Your task to perform on an android device: move an email to a new category in the gmail app Image 0: 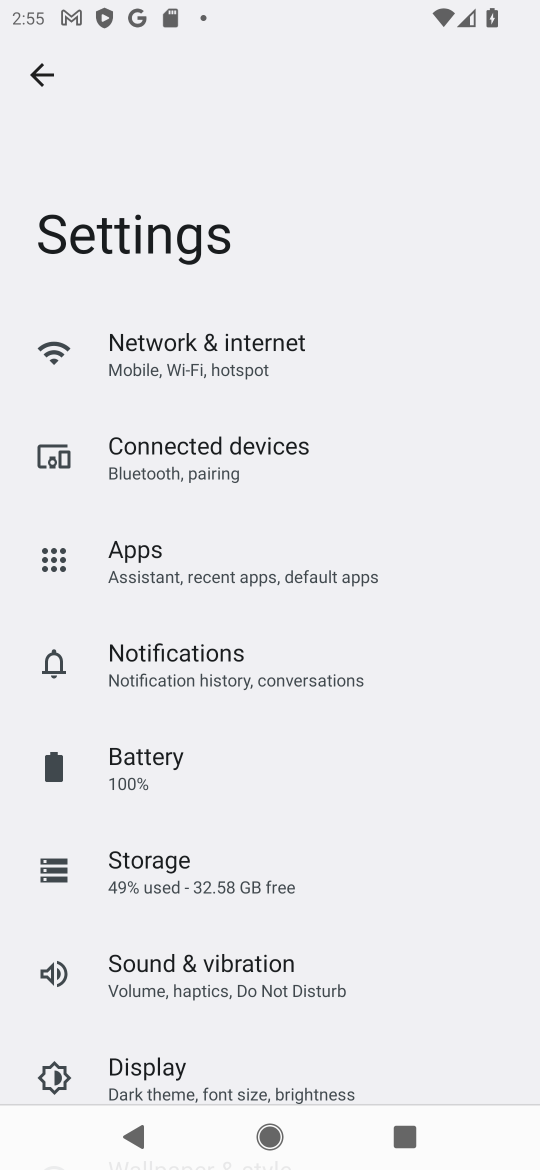
Step 0: press home button
Your task to perform on an android device: move an email to a new category in the gmail app Image 1: 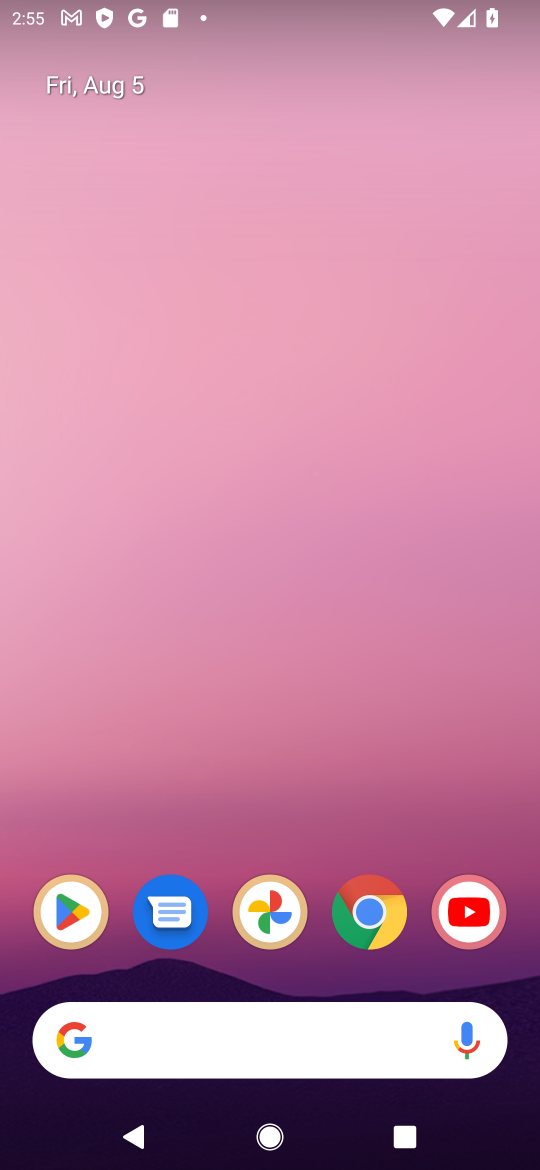
Step 1: drag from (226, 890) to (249, 197)
Your task to perform on an android device: move an email to a new category in the gmail app Image 2: 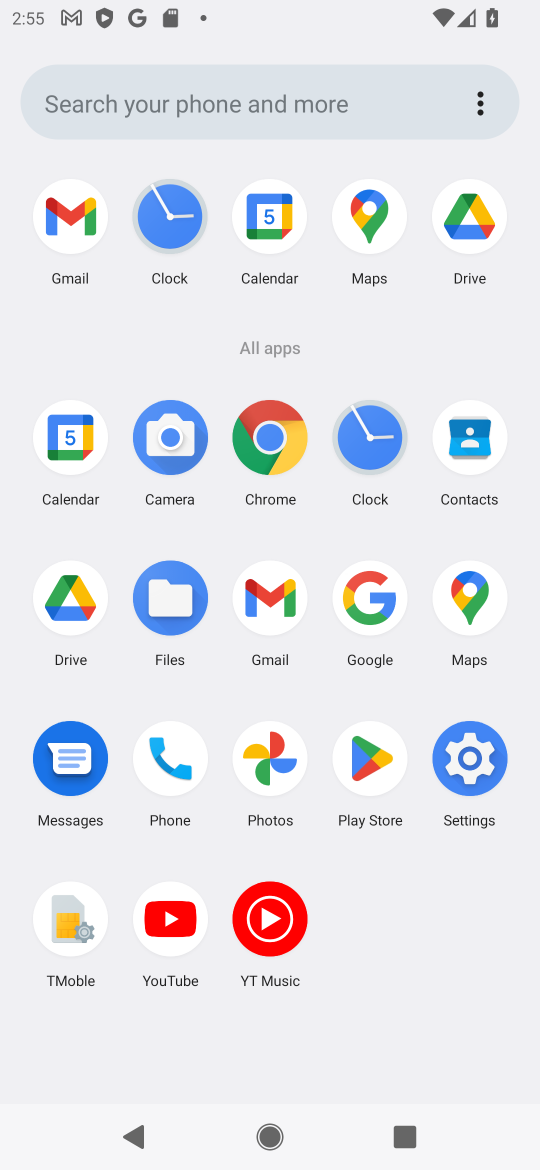
Step 2: click (278, 614)
Your task to perform on an android device: move an email to a new category in the gmail app Image 3: 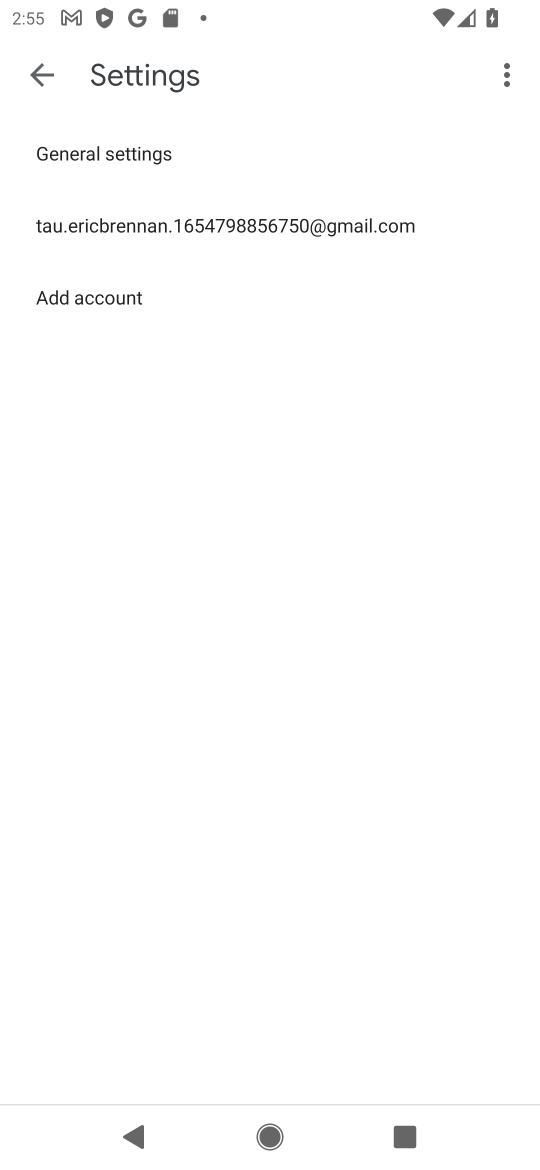
Step 3: click (31, 76)
Your task to perform on an android device: move an email to a new category in the gmail app Image 4: 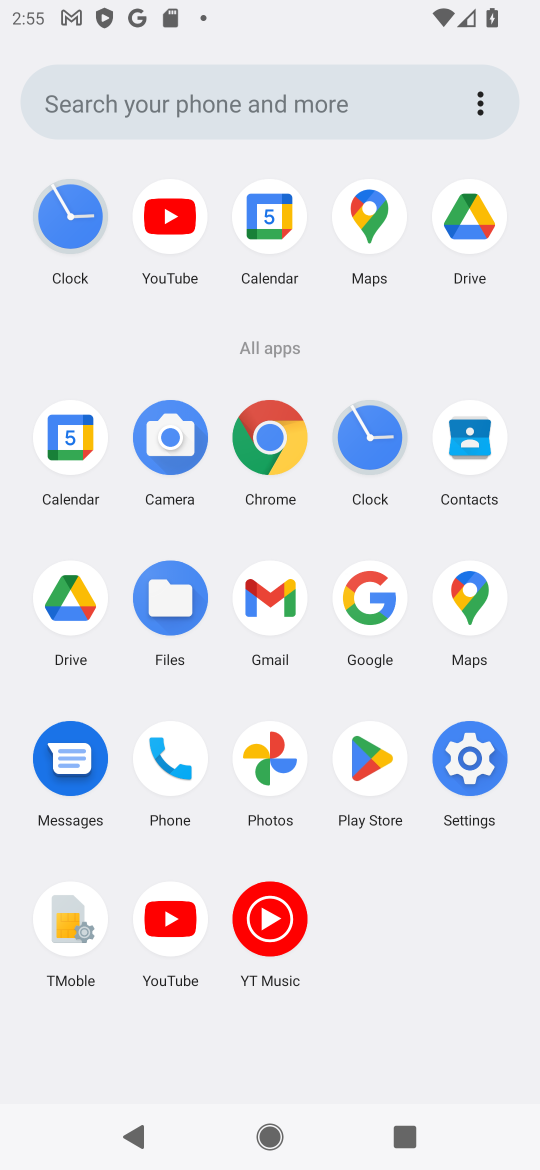
Step 4: click (276, 630)
Your task to perform on an android device: move an email to a new category in the gmail app Image 5: 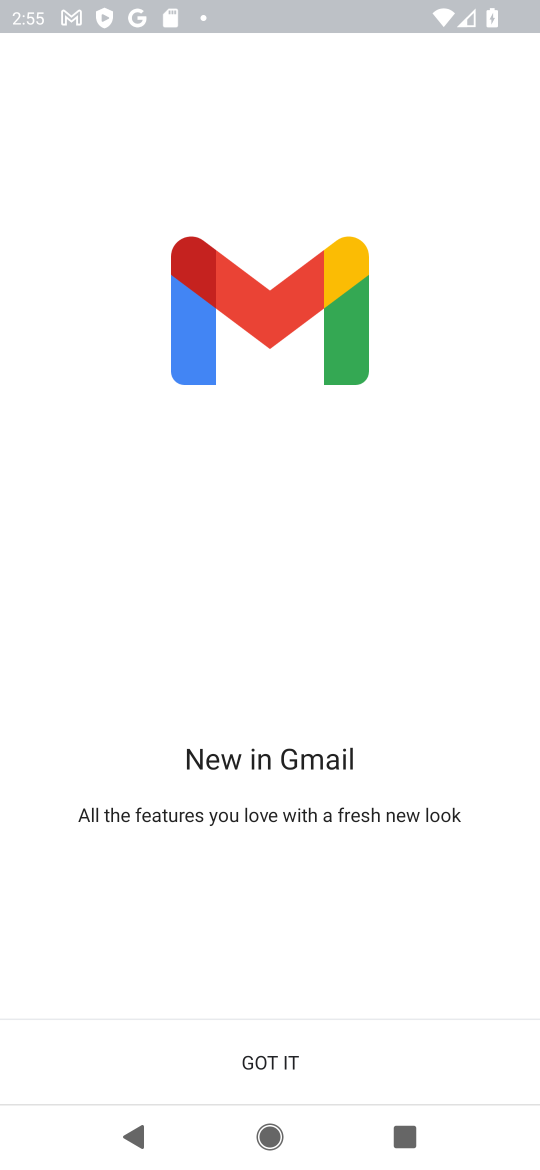
Step 5: click (313, 1065)
Your task to perform on an android device: move an email to a new category in the gmail app Image 6: 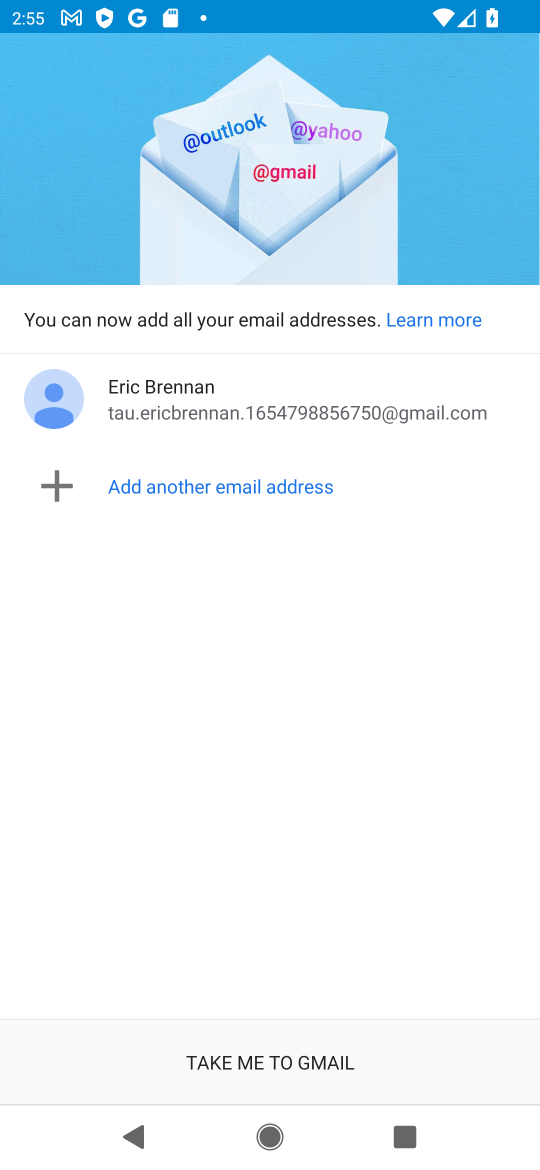
Step 6: click (313, 1068)
Your task to perform on an android device: move an email to a new category in the gmail app Image 7: 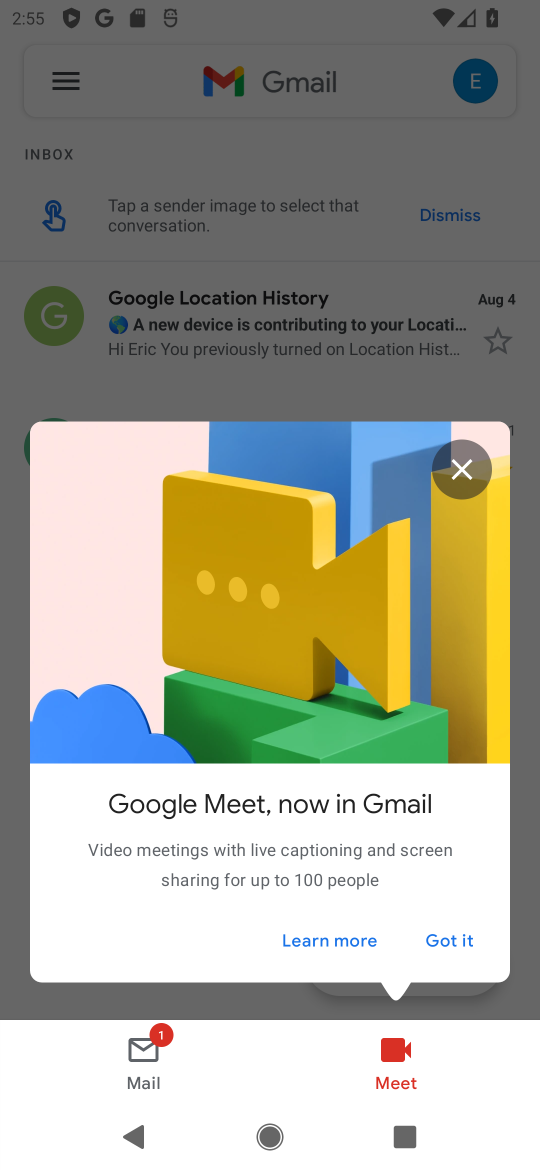
Step 7: click (465, 468)
Your task to perform on an android device: move an email to a new category in the gmail app Image 8: 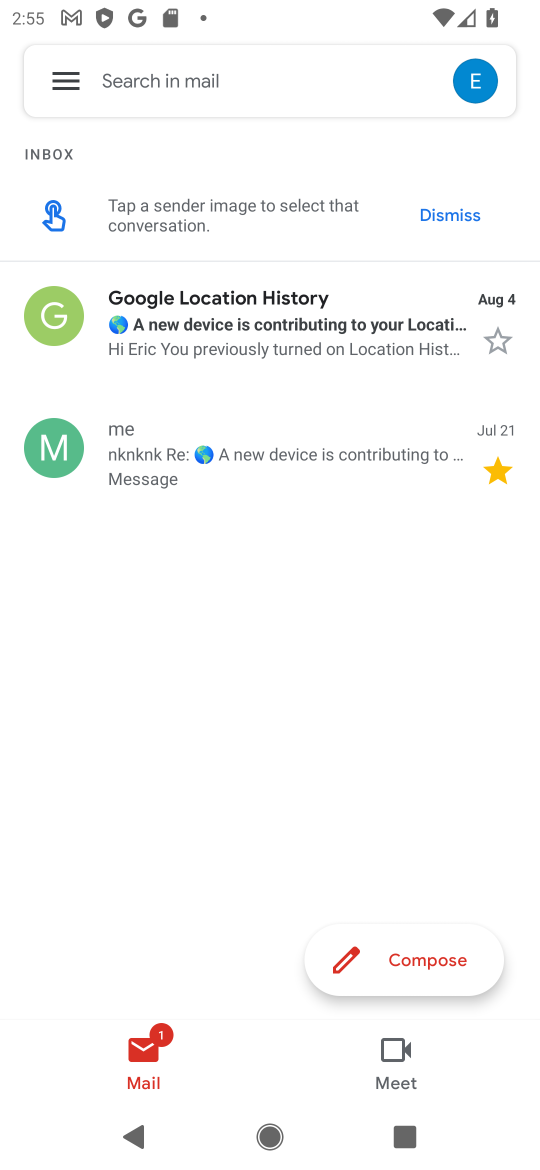
Step 8: click (39, 312)
Your task to perform on an android device: move an email to a new category in the gmail app Image 9: 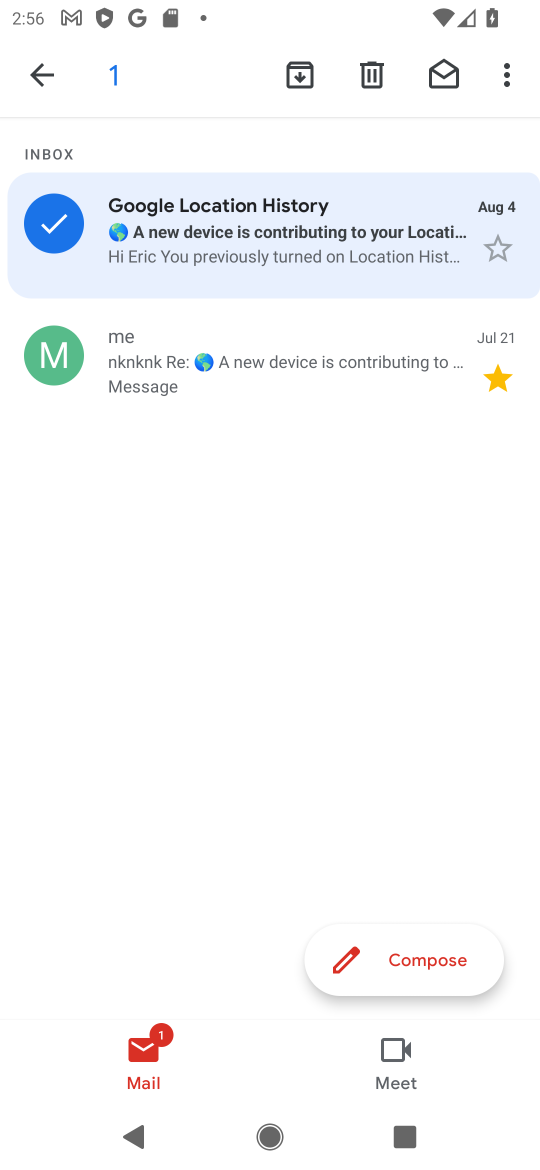
Step 9: click (502, 73)
Your task to perform on an android device: move an email to a new category in the gmail app Image 10: 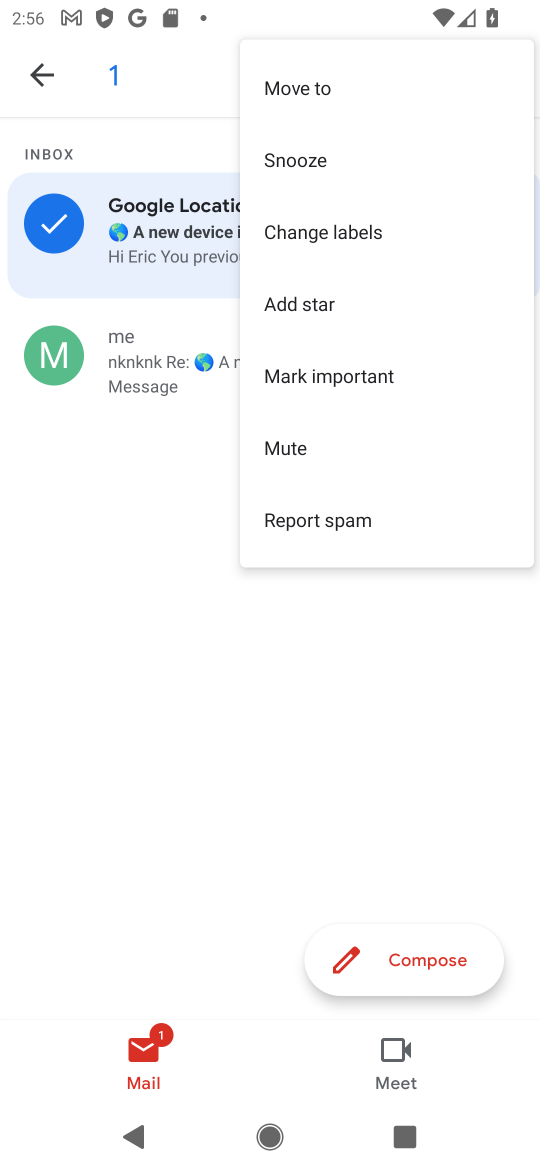
Step 10: click (347, 85)
Your task to perform on an android device: move an email to a new category in the gmail app Image 11: 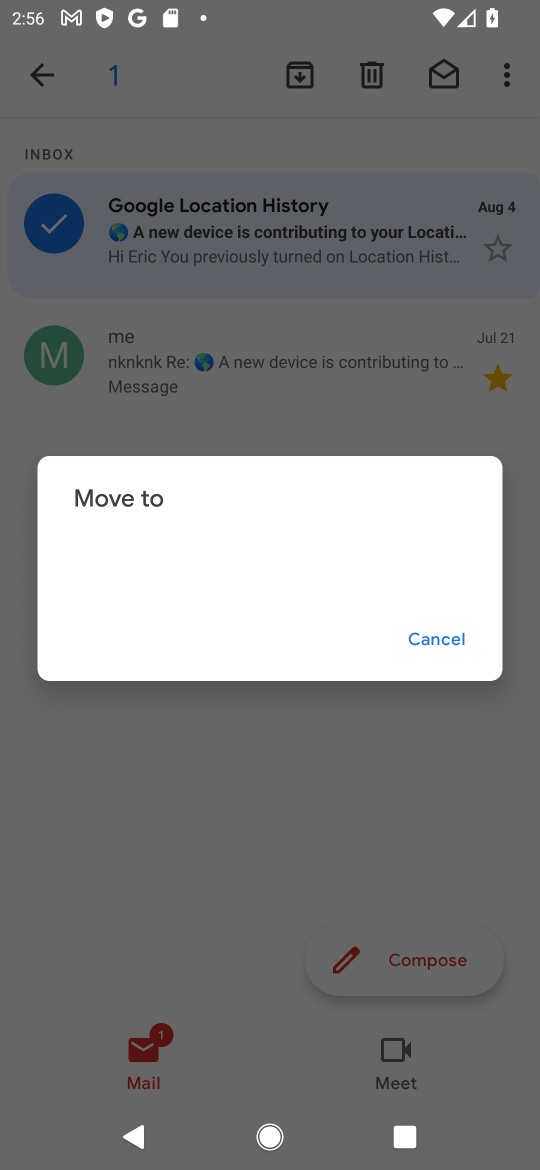
Step 11: click (441, 632)
Your task to perform on an android device: move an email to a new category in the gmail app Image 12: 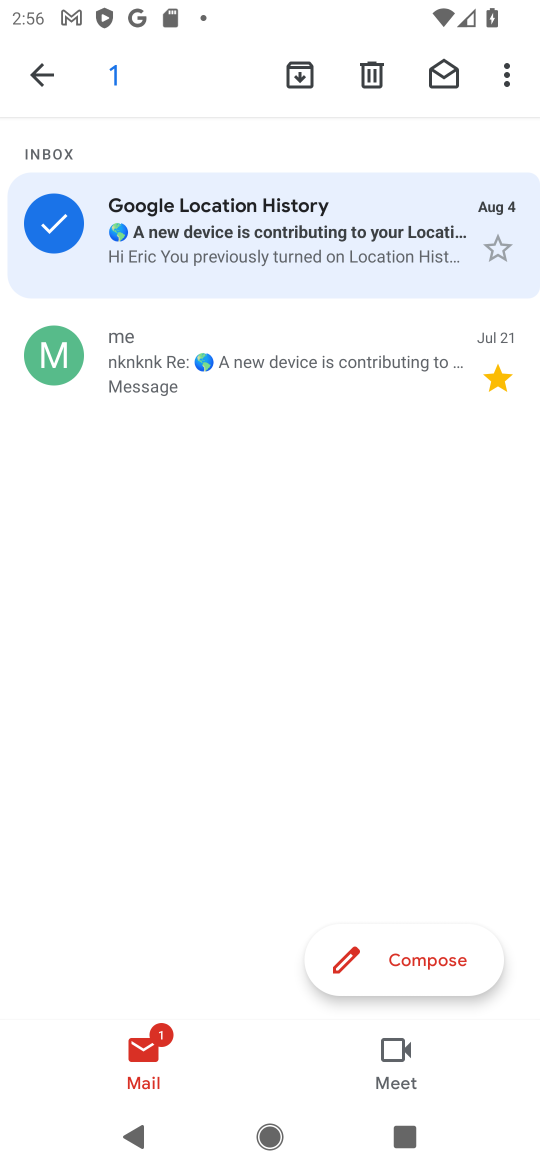
Step 12: click (513, 77)
Your task to perform on an android device: move an email to a new category in the gmail app Image 13: 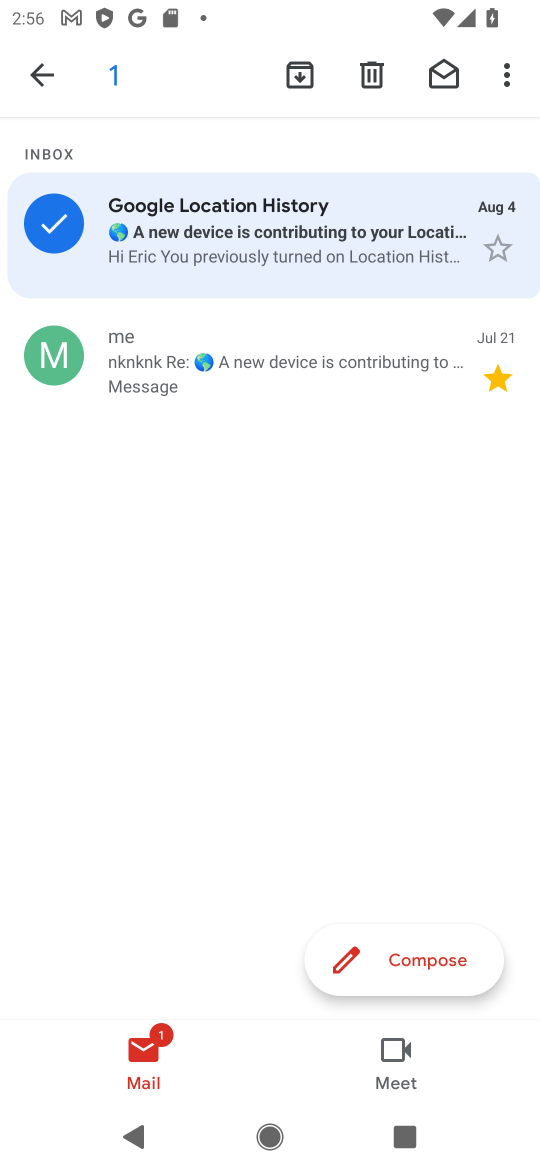
Step 13: click (499, 60)
Your task to perform on an android device: move an email to a new category in the gmail app Image 14: 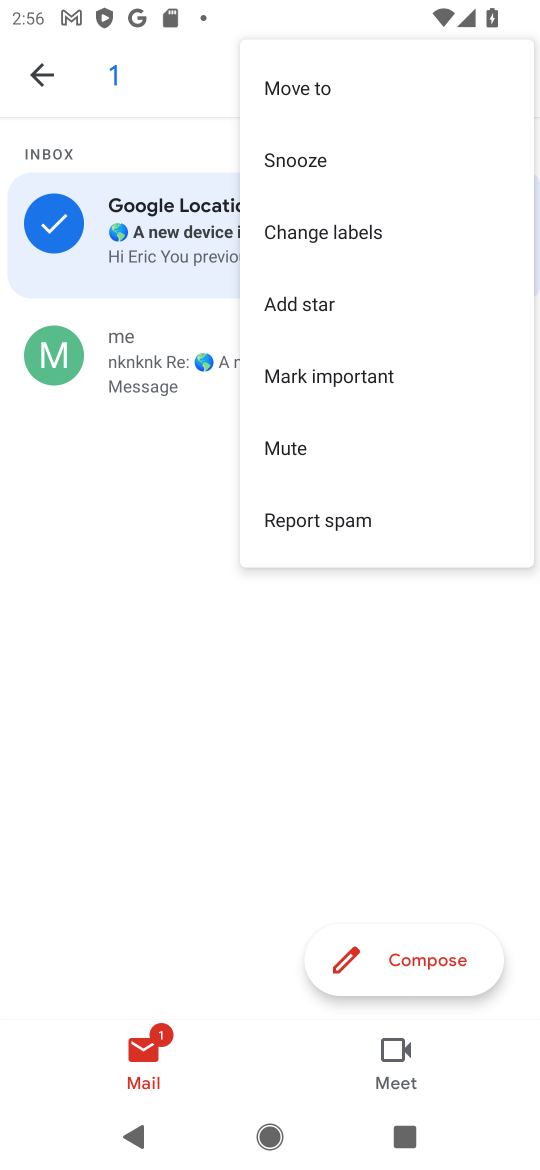
Step 14: click (354, 230)
Your task to perform on an android device: move an email to a new category in the gmail app Image 15: 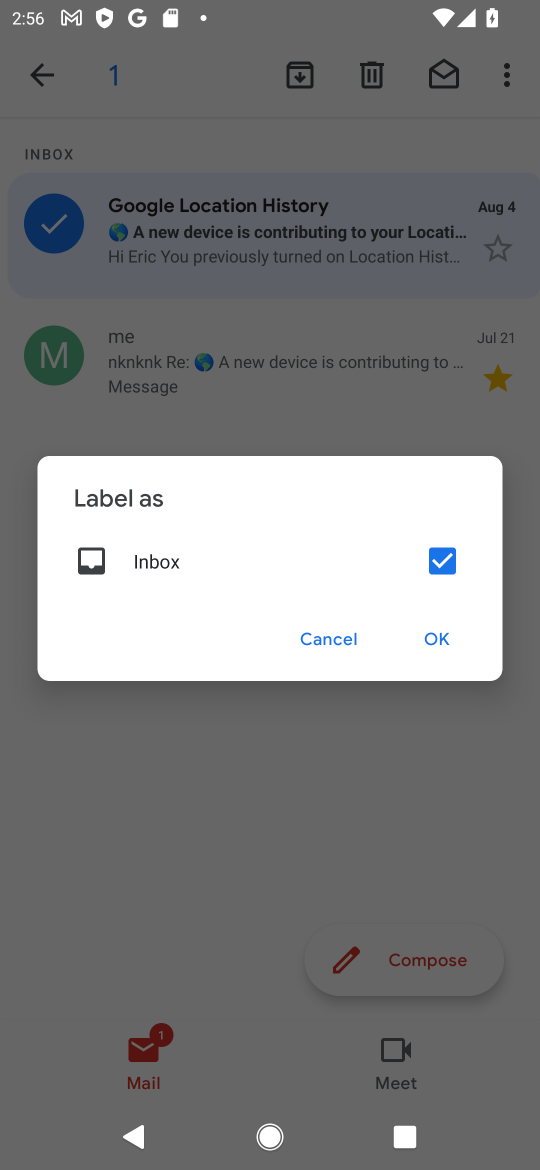
Step 15: click (455, 552)
Your task to perform on an android device: move an email to a new category in the gmail app Image 16: 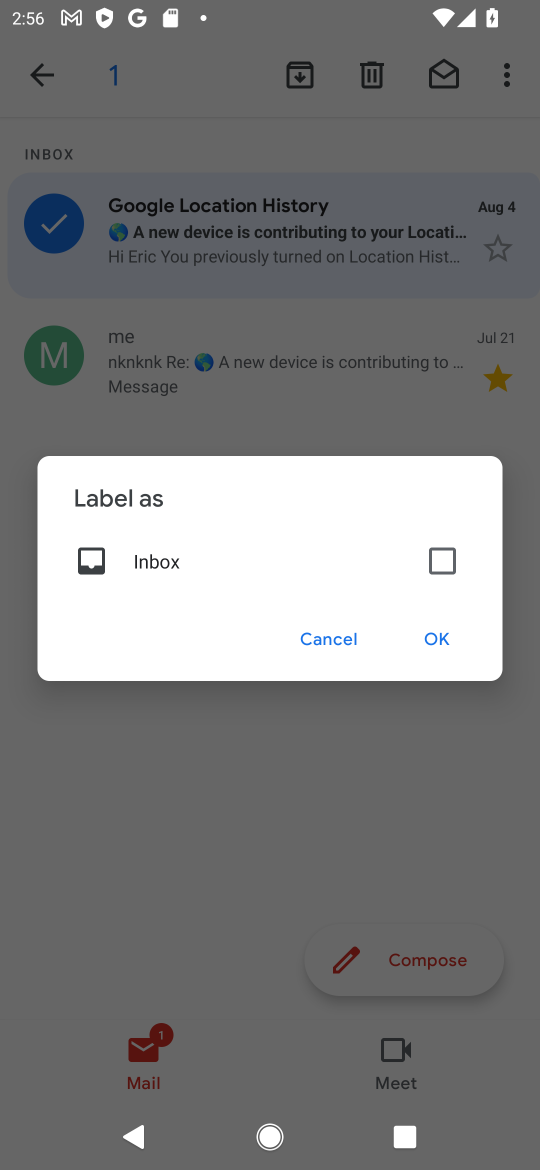
Step 16: click (445, 641)
Your task to perform on an android device: move an email to a new category in the gmail app Image 17: 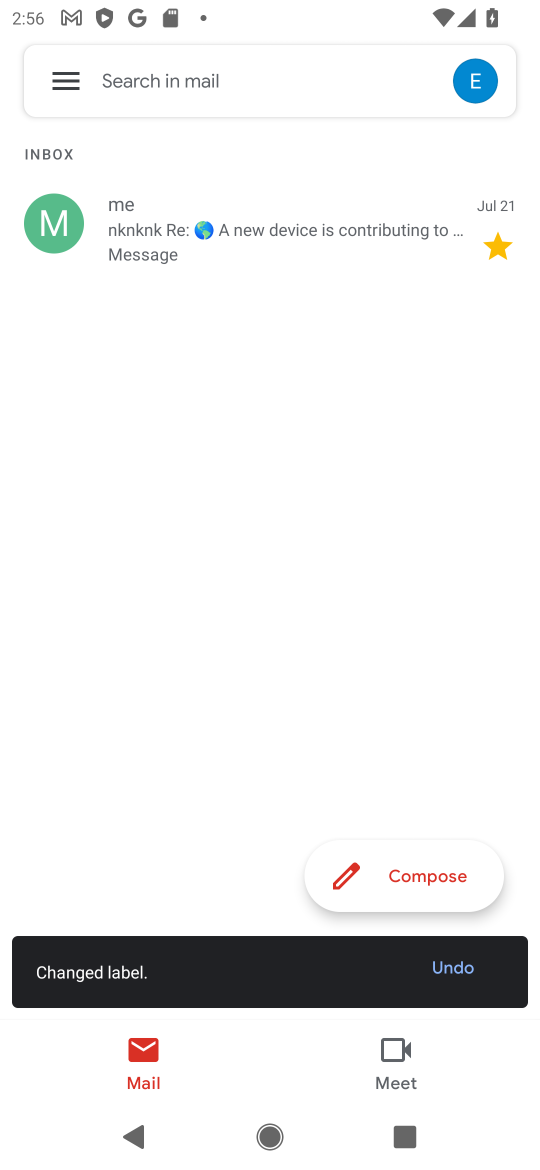
Step 17: task complete